Your task to perform on an android device: change keyboard looks Image 0: 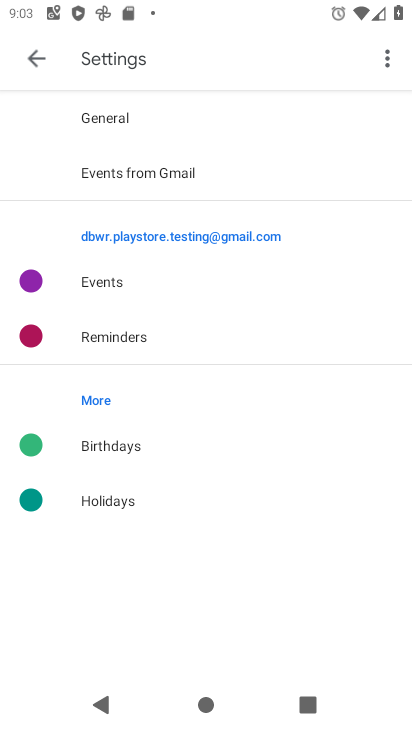
Step 0: press home button
Your task to perform on an android device: change keyboard looks Image 1: 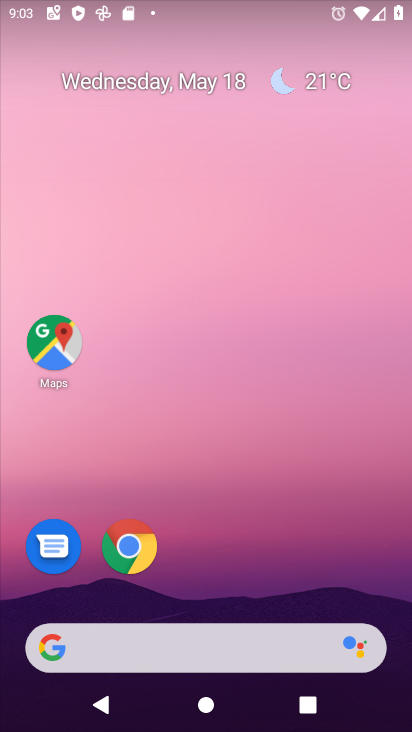
Step 1: drag from (393, 628) to (379, 87)
Your task to perform on an android device: change keyboard looks Image 2: 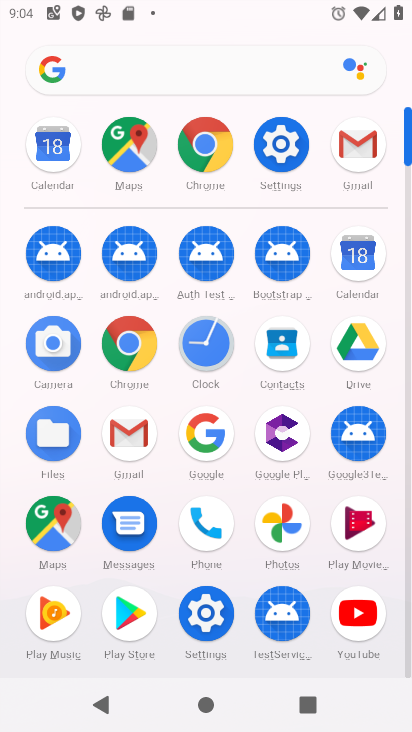
Step 2: click (215, 625)
Your task to perform on an android device: change keyboard looks Image 3: 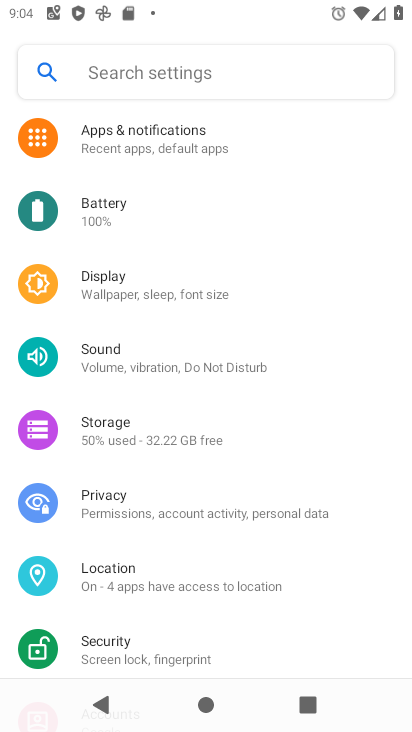
Step 3: drag from (215, 625) to (179, 102)
Your task to perform on an android device: change keyboard looks Image 4: 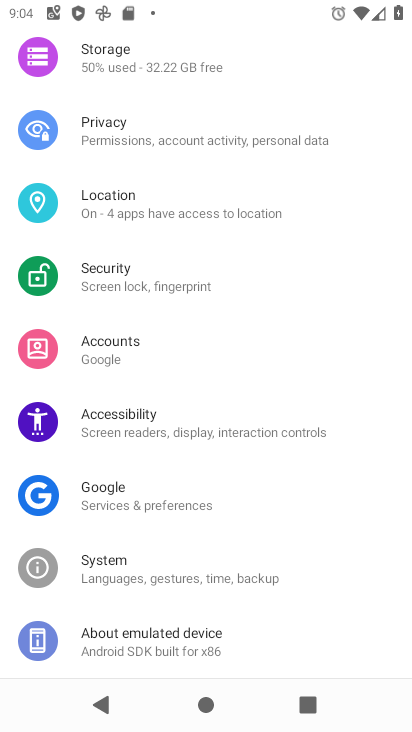
Step 4: click (144, 569)
Your task to perform on an android device: change keyboard looks Image 5: 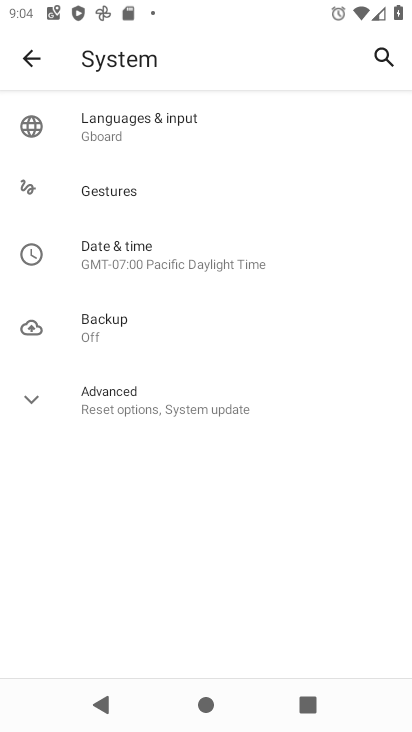
Step 5: click (178, 140)
Your task to perform on an android device: change keyboard looks Image 6: 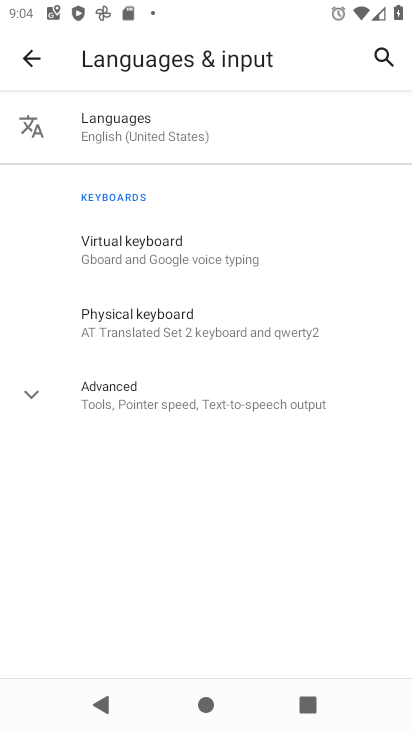
Step 6: click (175, 258)
Your task to perform on an android device: change keyboard looks Image 7: 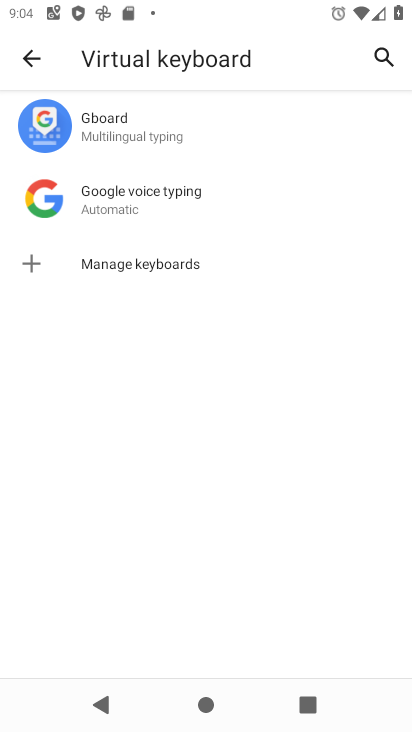
Step 7: click (155, 123)
Your task to perform on an android device: change keyboard looks Image 8: 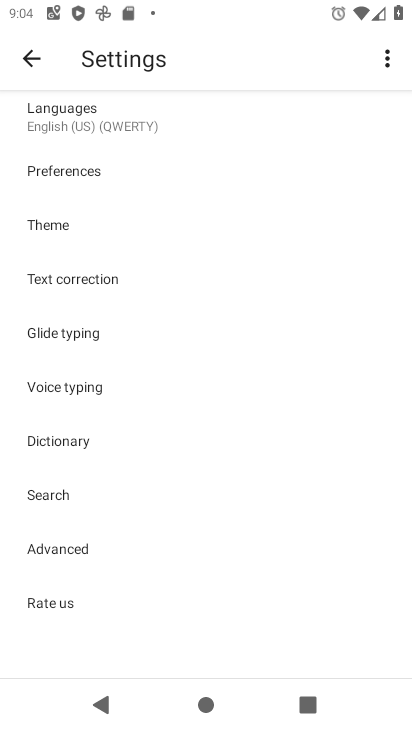
Step 8: click (61, 223)
Your task to perform on an android device: change keyboard looks Image 9: 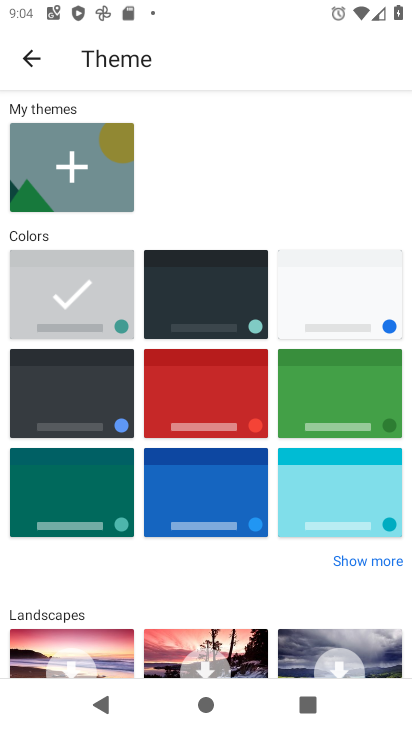
Step 9: click (191, 281)
Your task to perform on an android device: change keyboard looks Image 10: 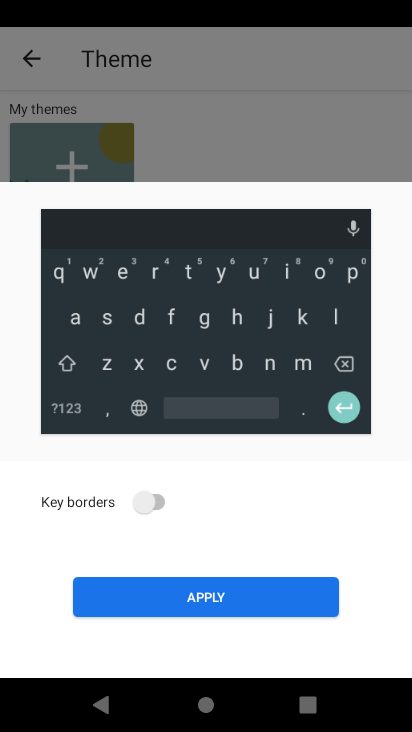
Step 10: click (254, 610)
Your task to perform on an android device: change keyboard looks Image 11: 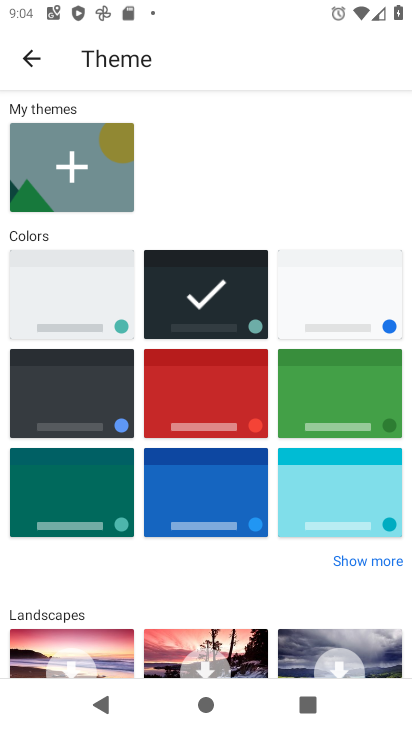
Step 11: task complete